Your task to perform on an android device: Search for dell xps on amazon.com, select the first entry, add it to the cart, then select checkout. Image 0: 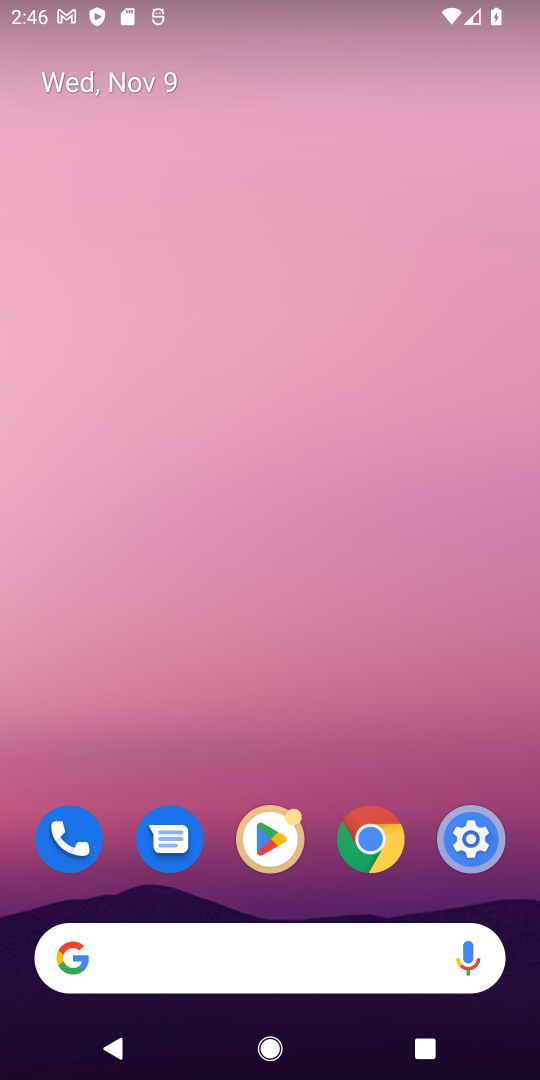
Step 0: click (161, 938)
Your task to perform on an android device: Search for dell xps on amazon.com, select the first entry, add it to the cart, then select checkout. Image 1: 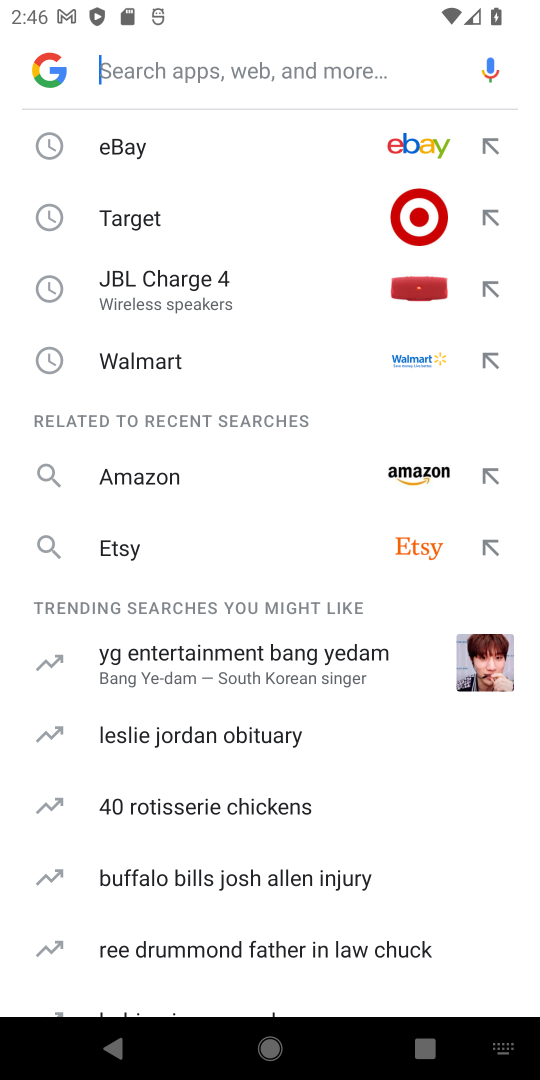
Step 1: click (398, 490)
Your task to perform on an android device: Search for dell xps on amazon.com, select the first entry, add it to the cart, then select checkout. Image 2: 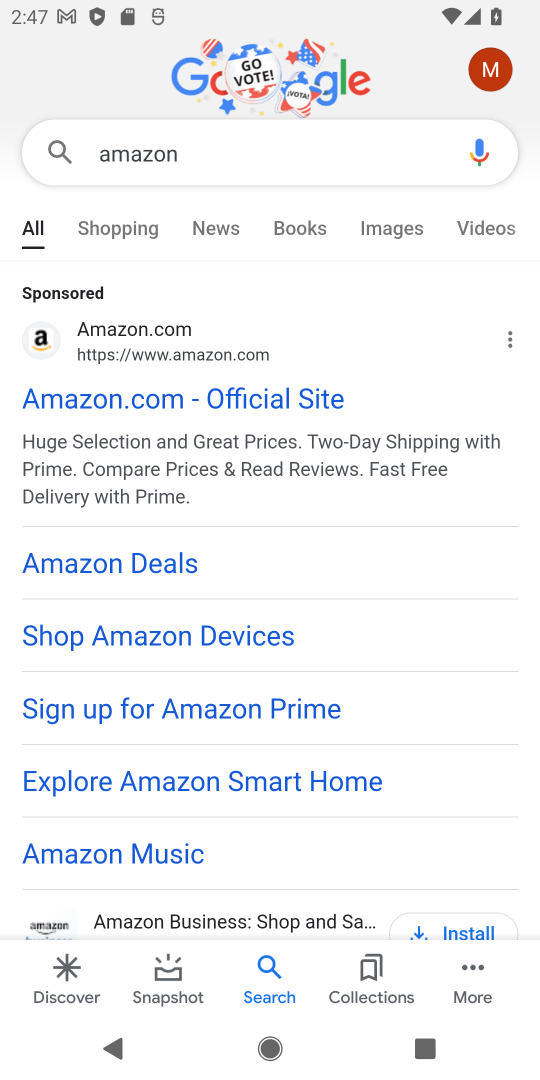
Step 2: click (189, 384)
Your task to perform on an android device: Search for dell xps on amazon.com, select the first entry, add it to the cart, then select checkout. Image 3: 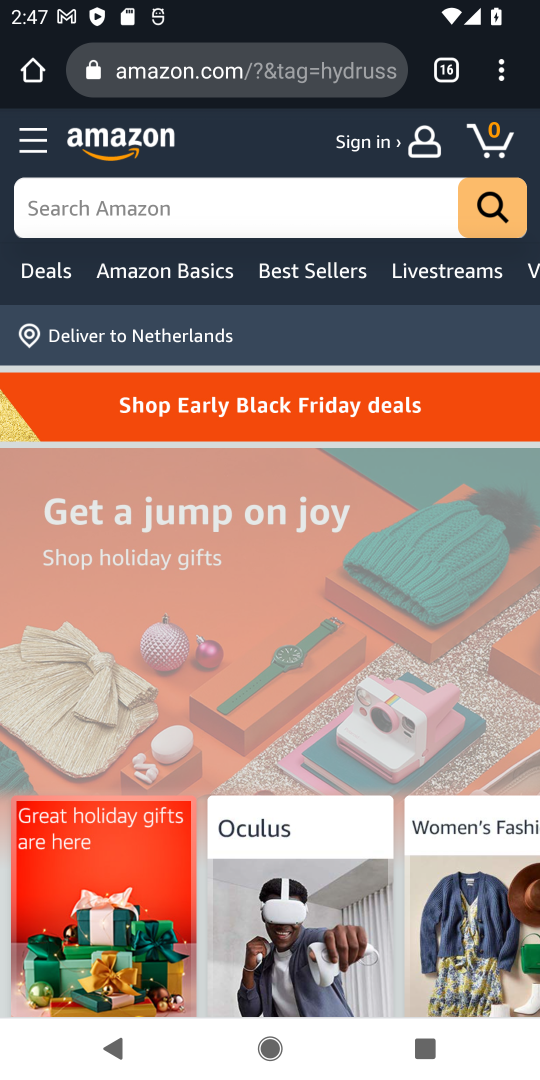
Step 3: click (170, 205)
Your task to perform on an android device: Search for dell xps on amazon.com, select the first entry, add it to the cart, then select checkout. Image 4: 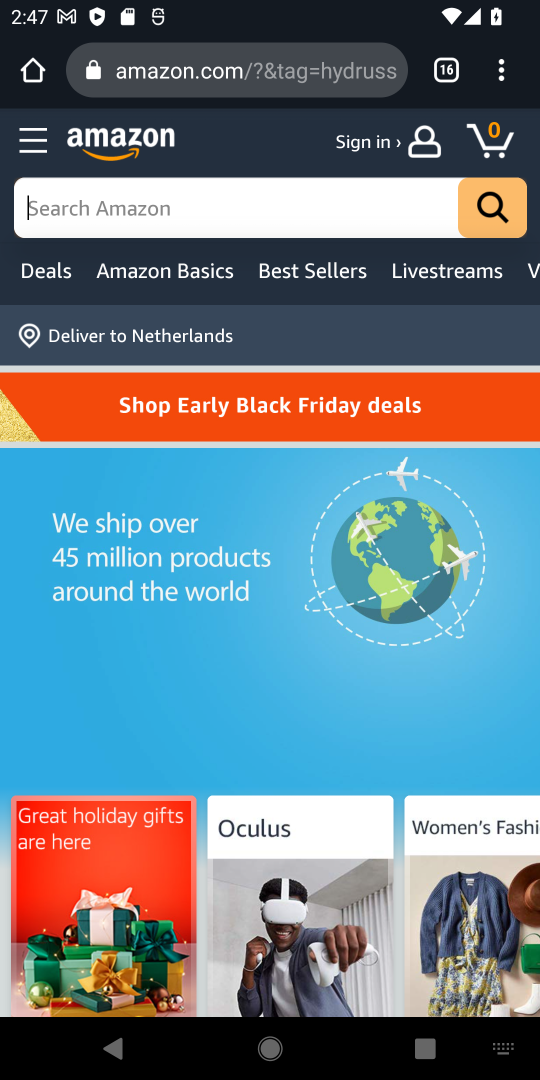
Step 4: type "dell xps"
Your task to perform on an android device: Search for dell xps on amazon.com, select the first entry, add it to the cart, then select checkout. Image 5: 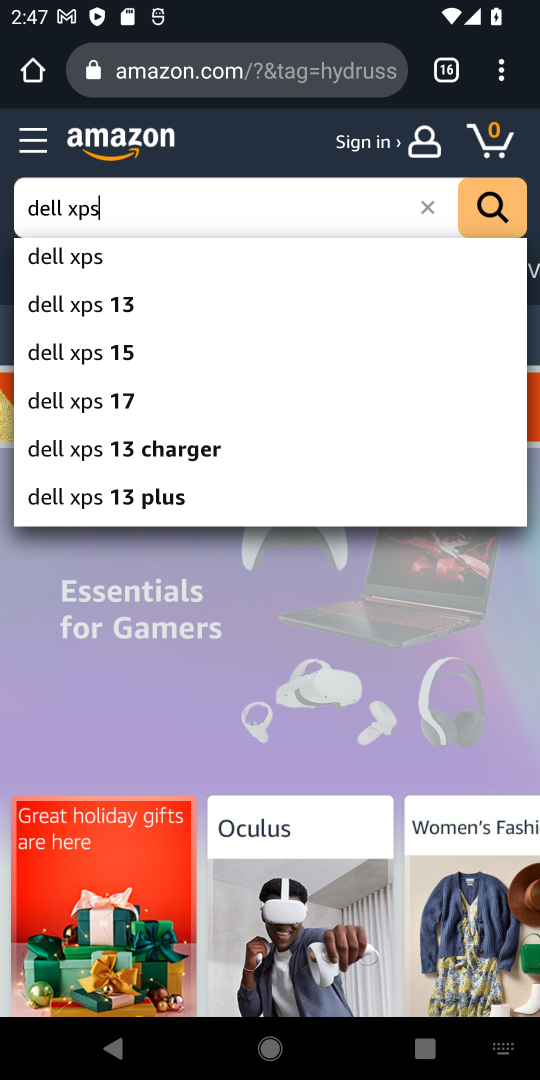
Step 5: click (89, 256)
Your task to perform on an android device: Search for dell xps on amazon.com, select the first entry, add it to the cart, then select checkout. Image 6: 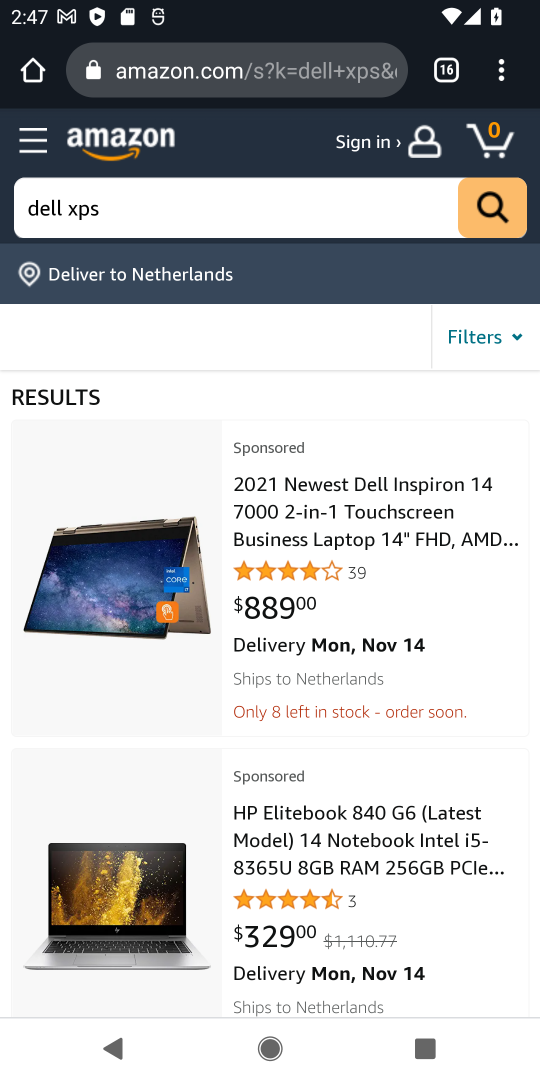
Step 6: click (296, 519)
Your task to perform on an android device: Search for dell xps on amazon.com, select the first entry, add it to the cart, then select checkout. Image 7: 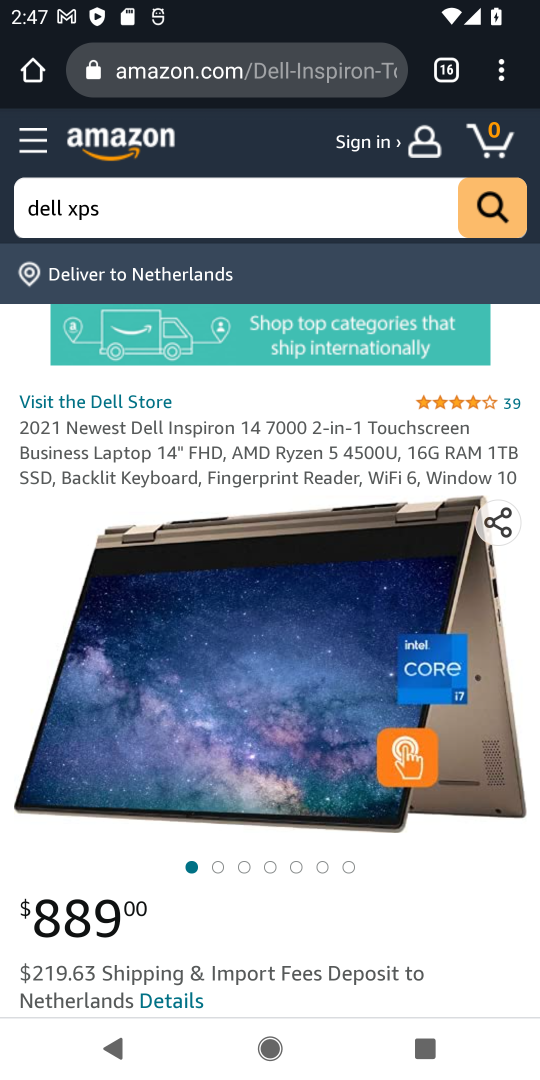
Step 7: drag from (241, 897) to (290, 674)
Your task to perform on an android device: Search for dell xps on amazon.com, select the first entry, add it to the cart, then select checkout. Image 8: 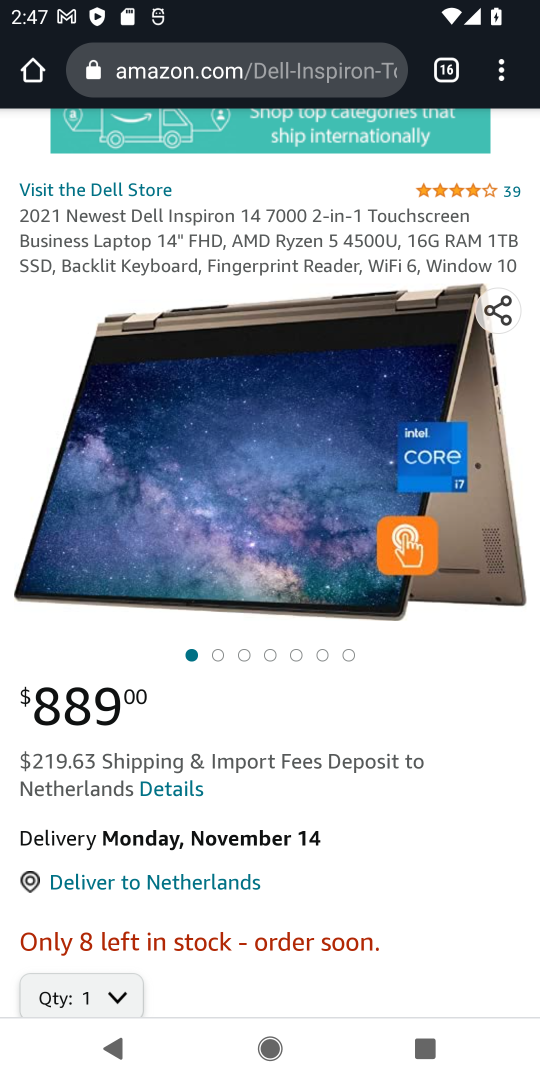
Step 8: drag from (389, 848) to (404, 271)
Your task to perform on an android device: Search for dell xps on amazon.com, select the first entry, add it to the cart, then select checkout. Image 9: 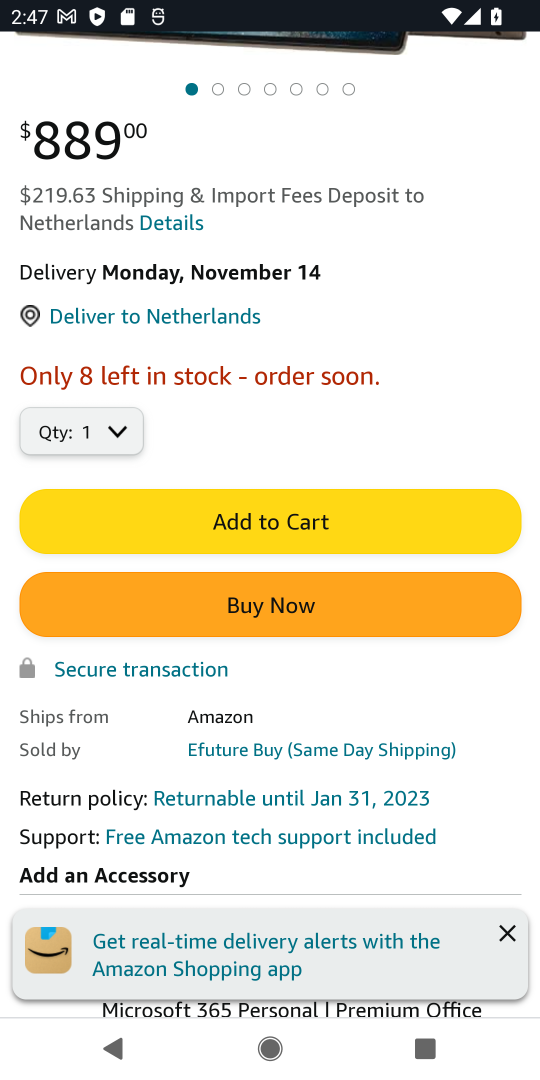
Step 9: click (276, 512)
Your task to perform on an android device: Search for dell xps on amazon.com, select the first entry, add it to the cart, then select checkout. Image 10: 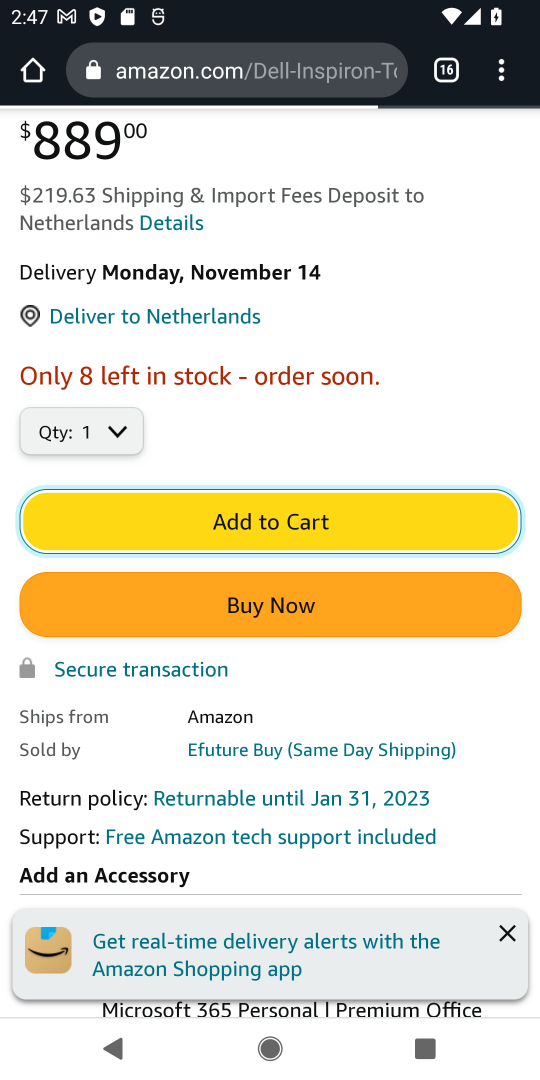
Step 10: task complete